Your task to perform on an android device: see sites visited before in the chrome app Image 0: 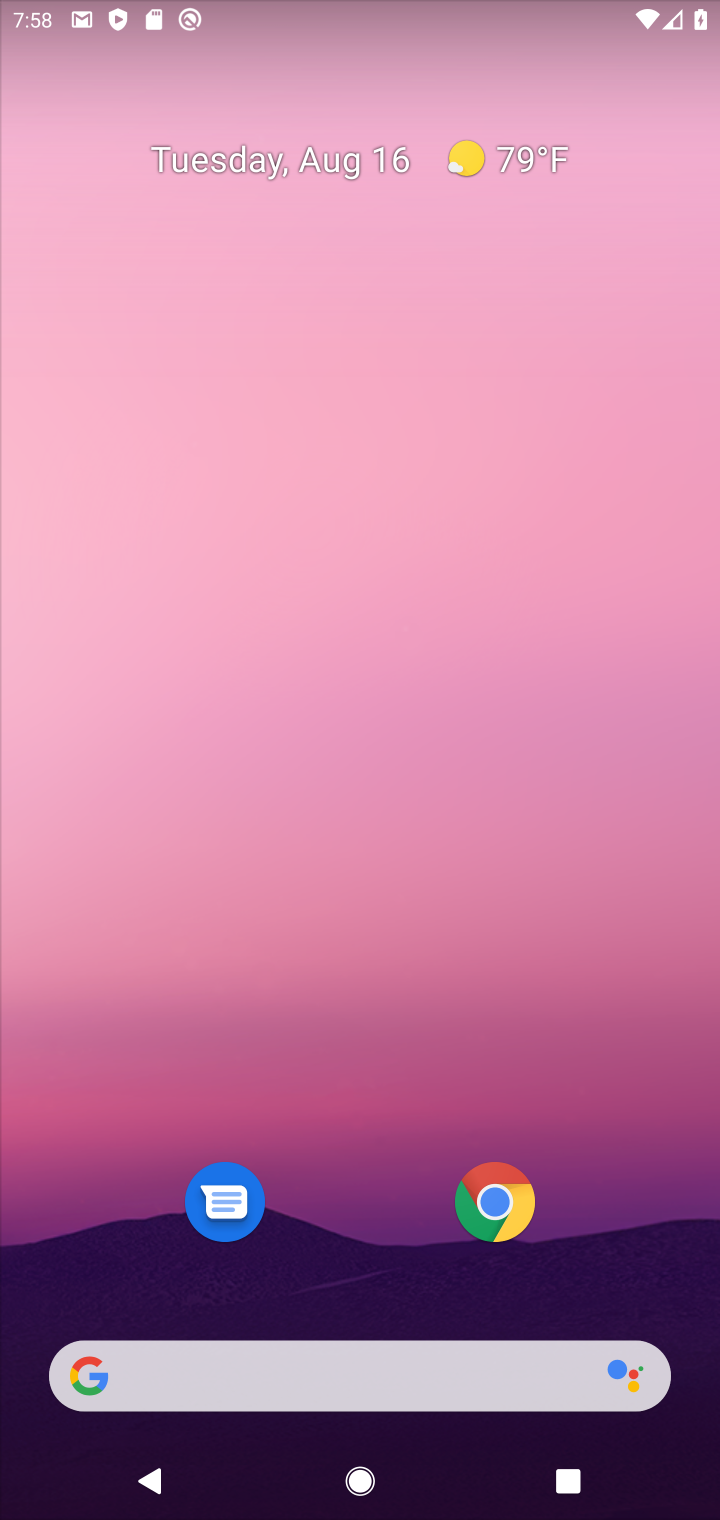
Step 0: drag from (392, 1245) to (392, 68)
Your task to perform on an android device: see sites visited before in the chrome app Image 1: 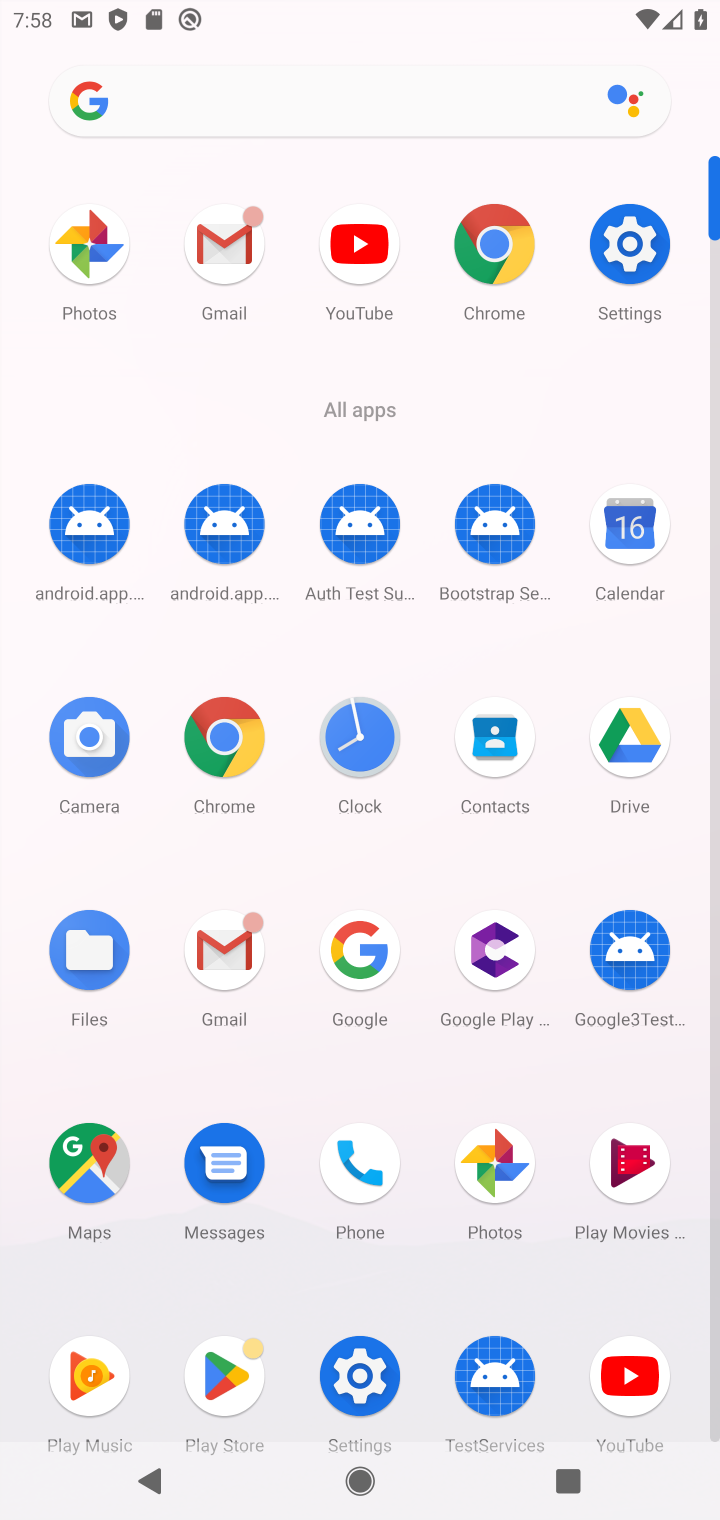
Step 1: click (509, 266)
Your task to perform on an android device: see sites visited before in the chrome app Image 2: 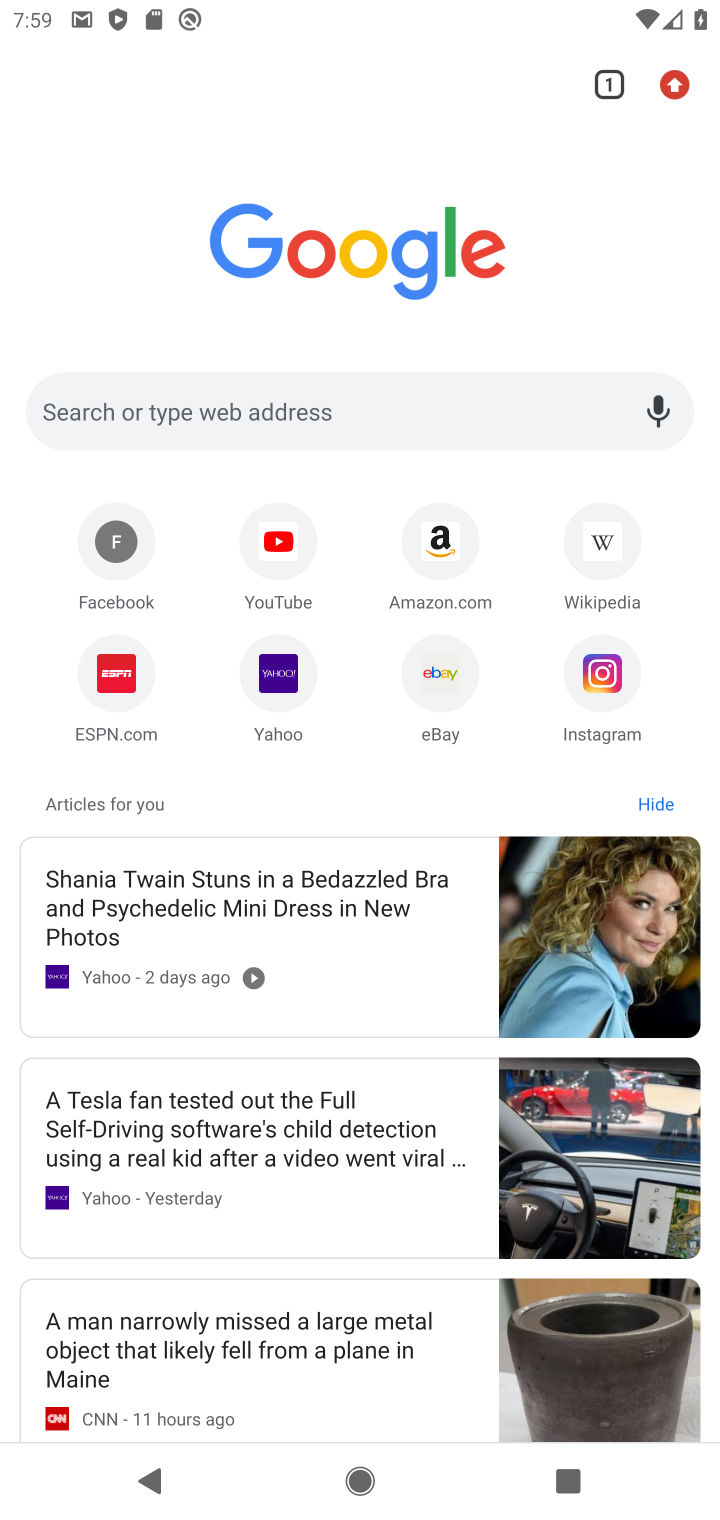
Step 2: click (663, 96)
Your task to perform on an android device: see sites visited before in the chrome app Image 3: 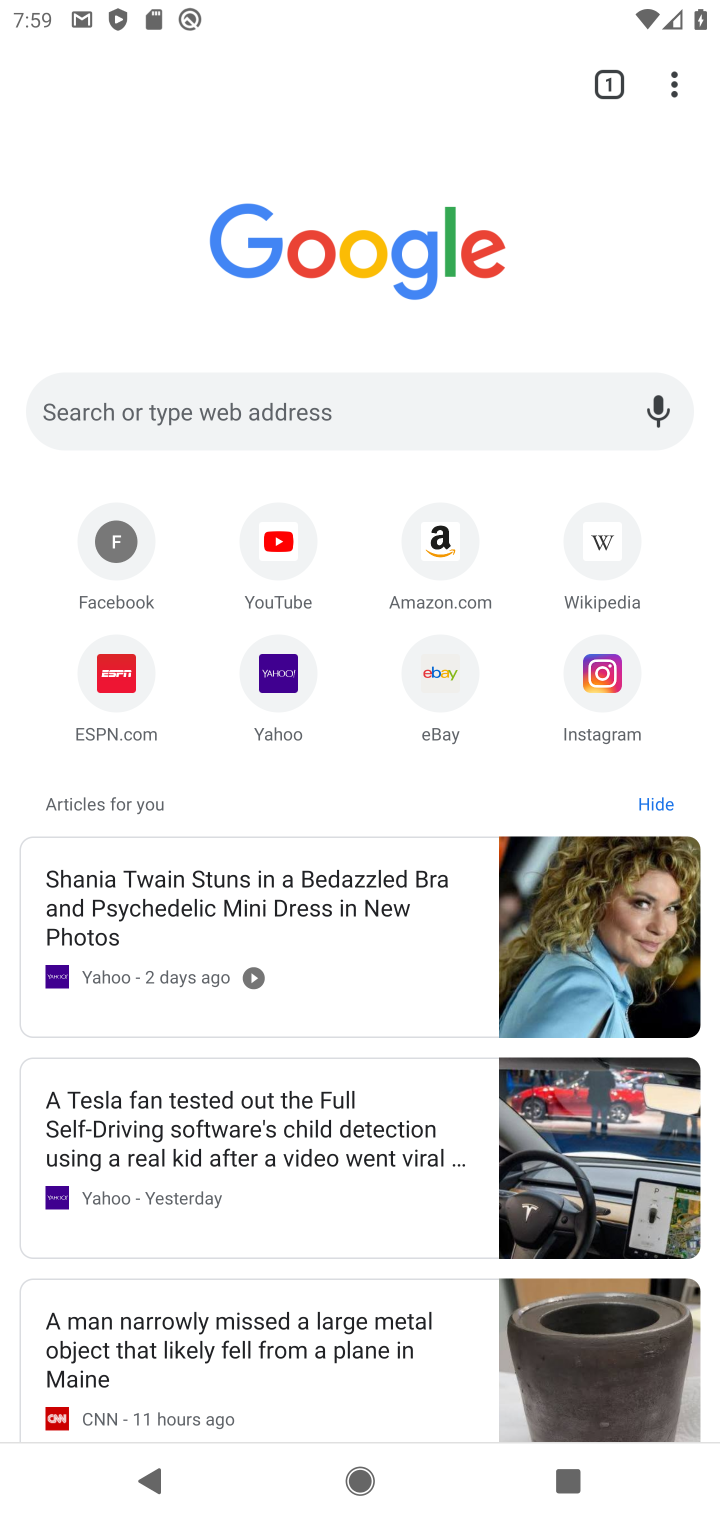
Step 3: click (663, 101)
Your task to perform on an android device: see sites visited before in the chrome app Image 4: 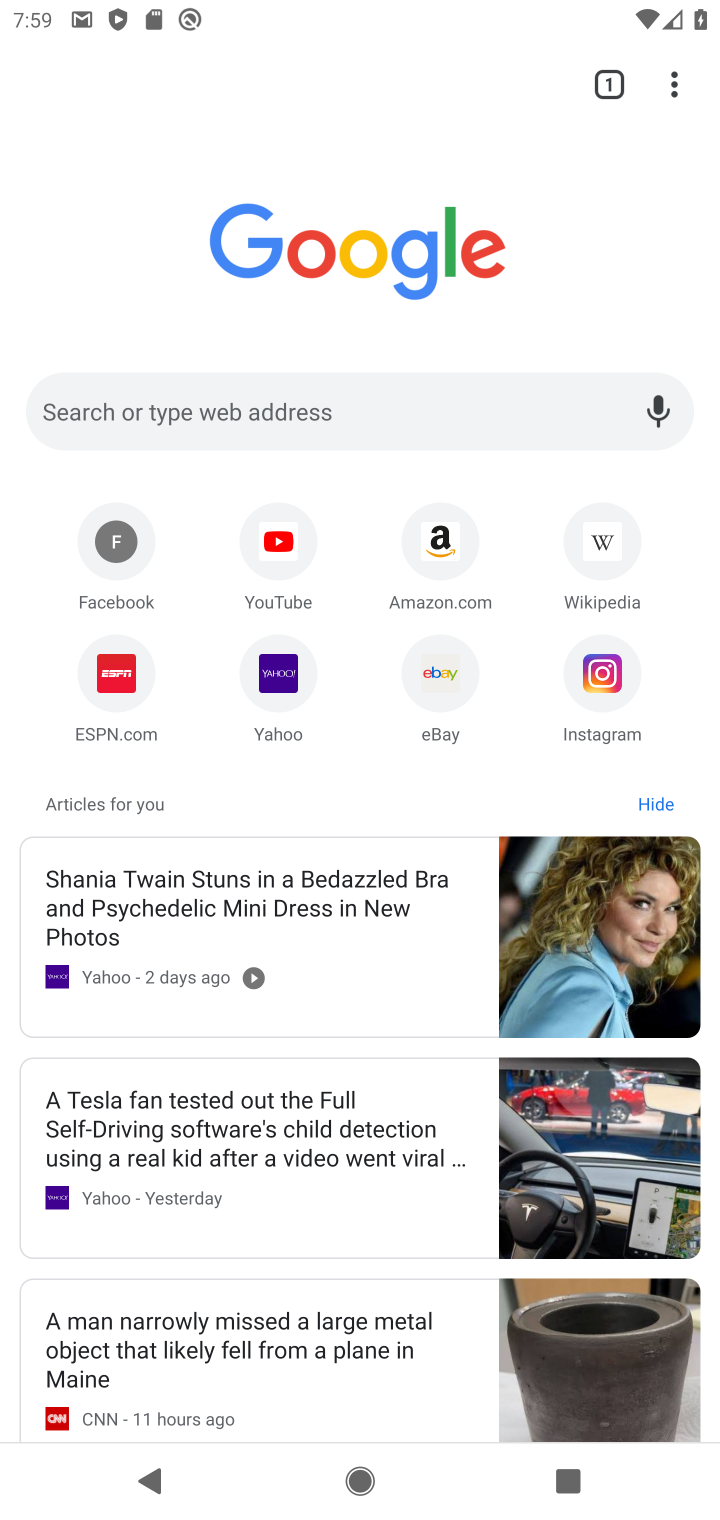
Step 4: task complete